Your task to perform on an android device: Open the stopwatch Image 0: 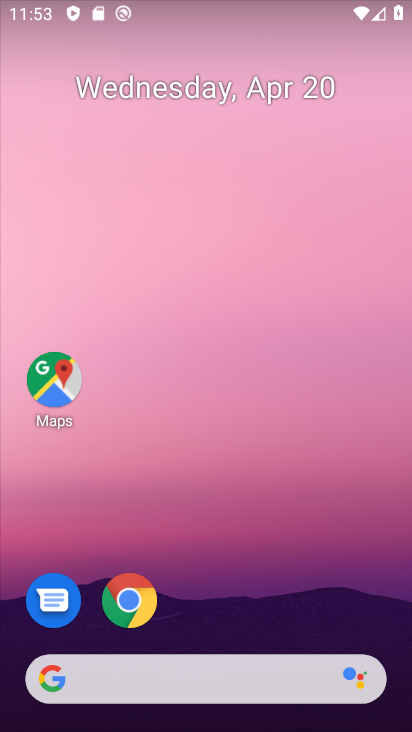
Step 0: drag from (343, 588) to (317, 124)
Your task to perform on an android device: Open the stopwatch Image 1: 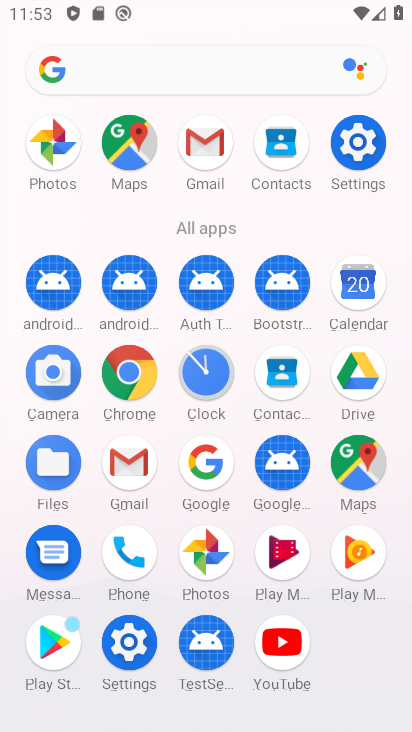
Step 1: click (219, 385)
Your task to perform on an android device: Open the stopwatch Image 2: 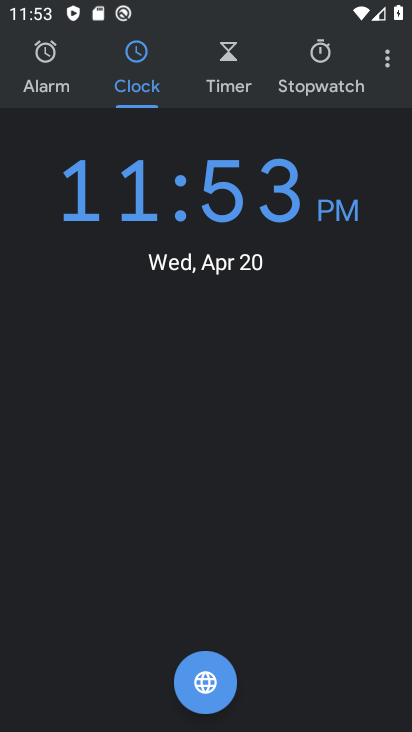
Step 2: click (387, 75)
Your task to perform on an android device: Open the stopwatch Image 3: 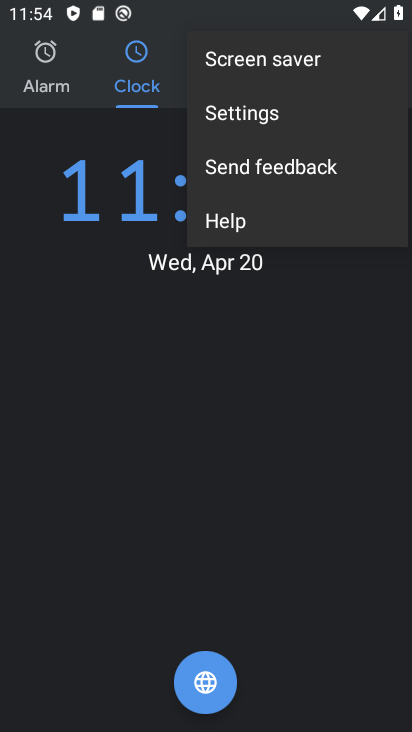
Step 3: click (179, 35)
Your task to perform on an android device: Open the stopwatch Image 4: 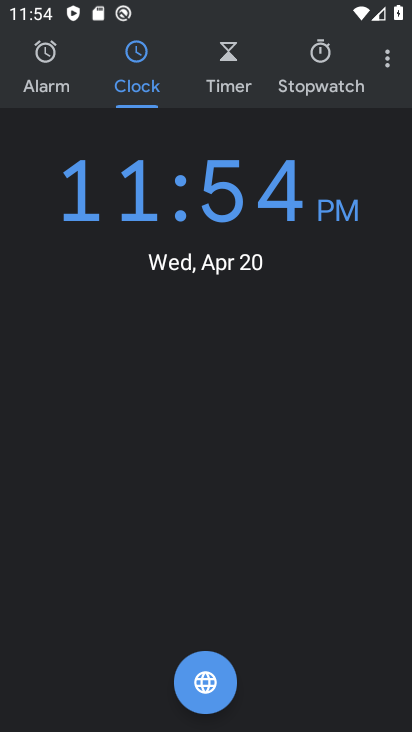
Step 4: click (302, 75)
Your task to perform on an android device: Open the stopwatch Image 5: 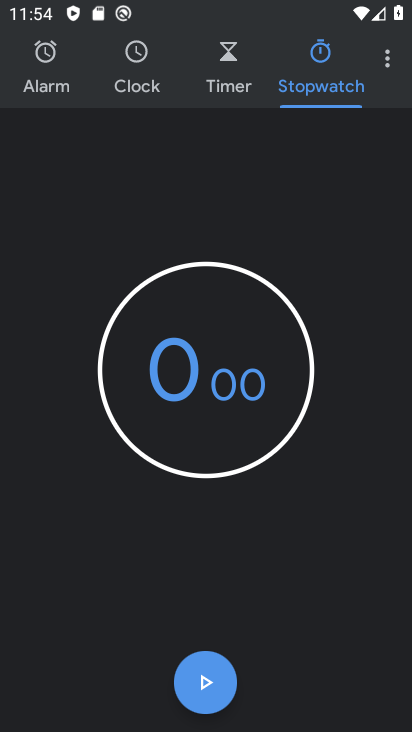
Step 5: click (205, 700)
Your task to perform on an android device: Open the stopwatch Image 6: 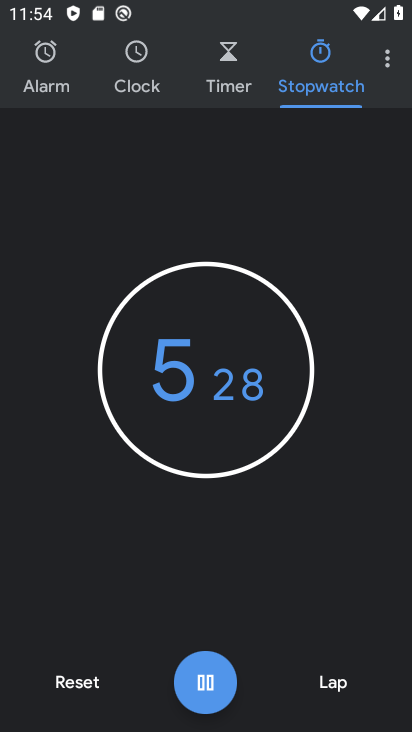
Step 6: click (207, 674)
Your task to perform on an android device: Open the stopwatch Image 7: 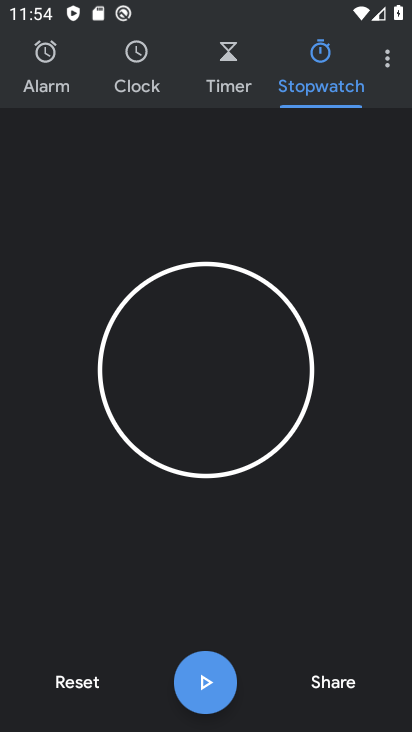
Step 7: task complete